Your task to perform on an android device: snooze an email in the gmail app Image 0: 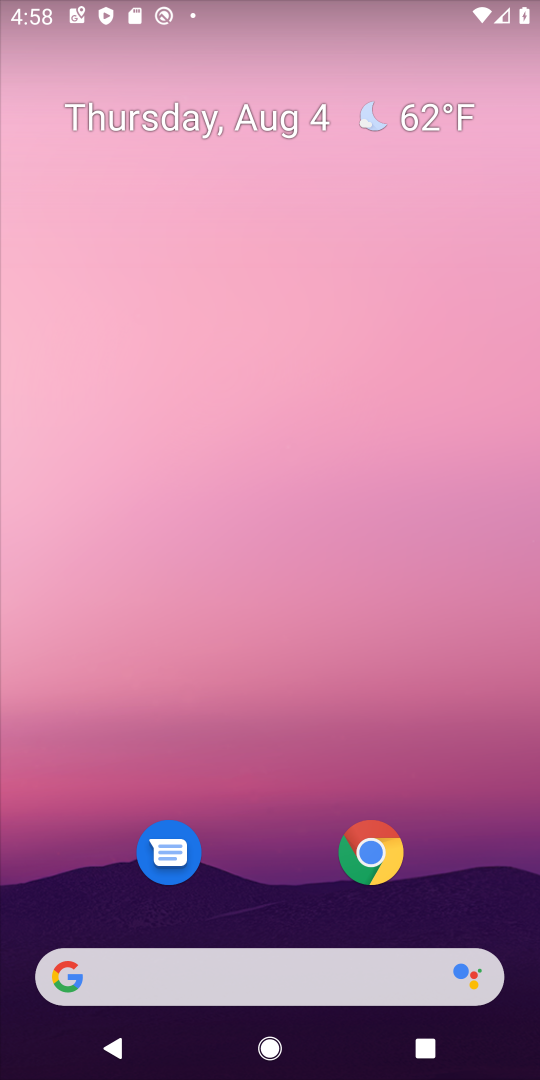
Step 0: drag from (255, 902) to (257, 133)
Your task to perform on an android device: snooze an email in the gmail app Image 1: 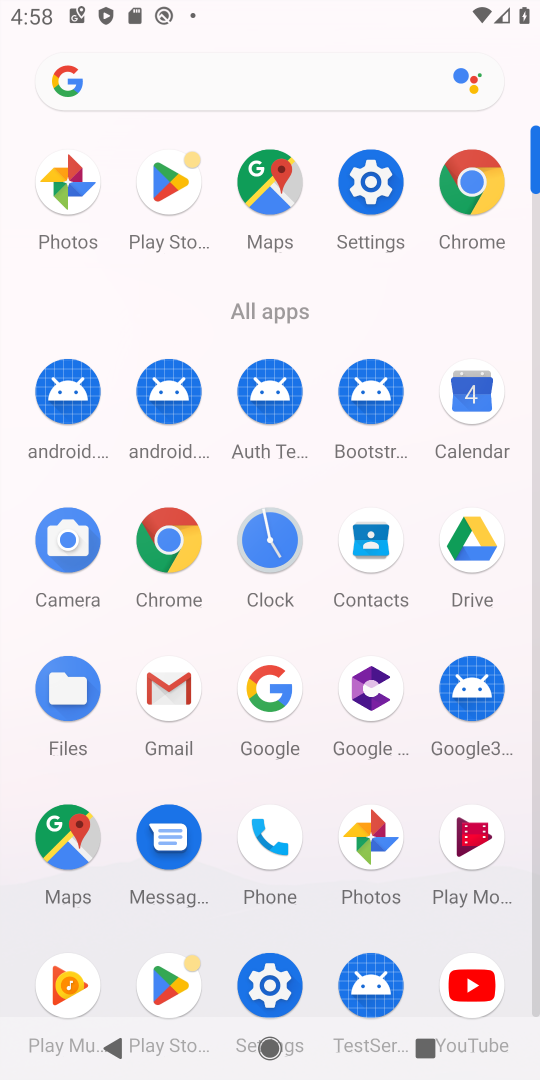
Step 1: click (174, 683)
Your task to perform on an android device: snooze an email in the gmail app Image 2: 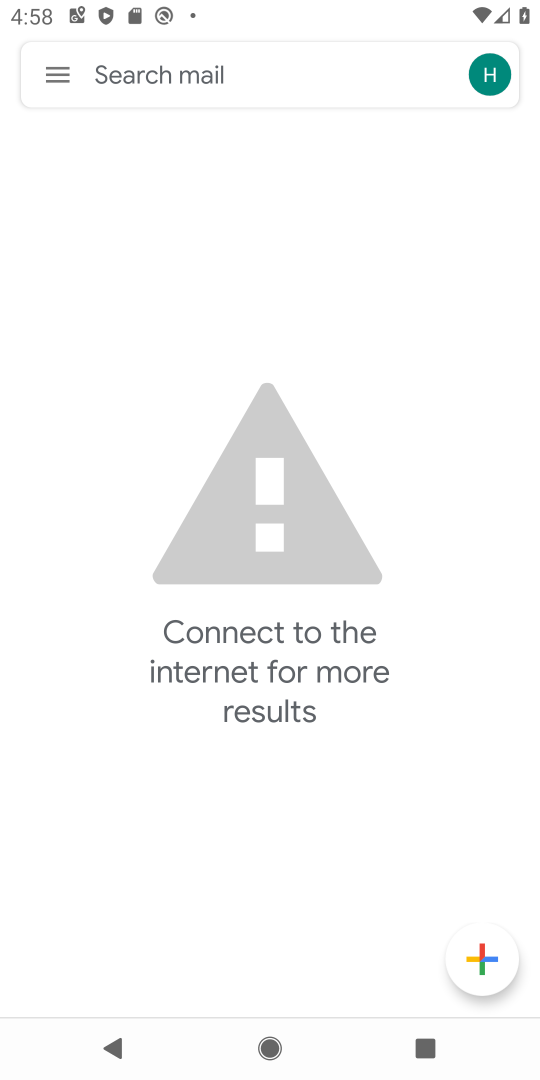
Step 2: click (58, 79)
Your task to perform on an android device: snooze an email in the gmail app Image 3: 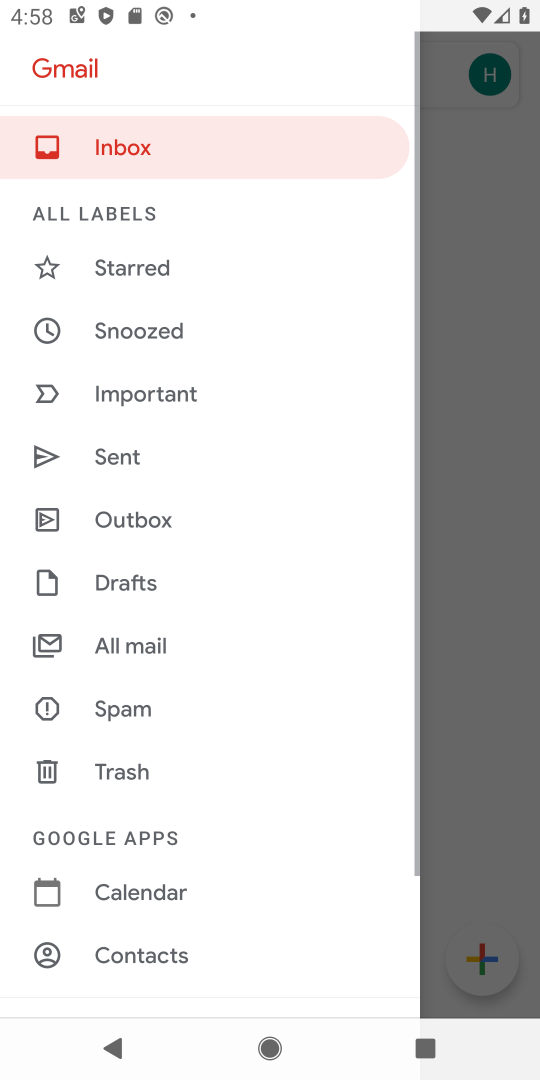
Step 3: click (170, 146)
Your task to perform on an android device: snooze an email in the gmail app Image 4: 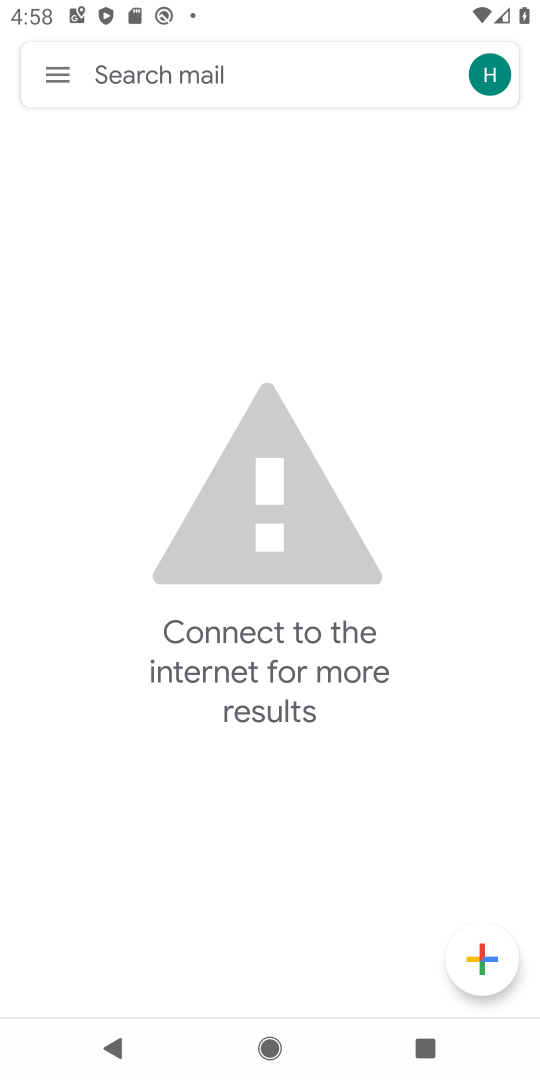
Step 4: task complete